Your task to perform on an android device: turn on airplane mode Image 0: 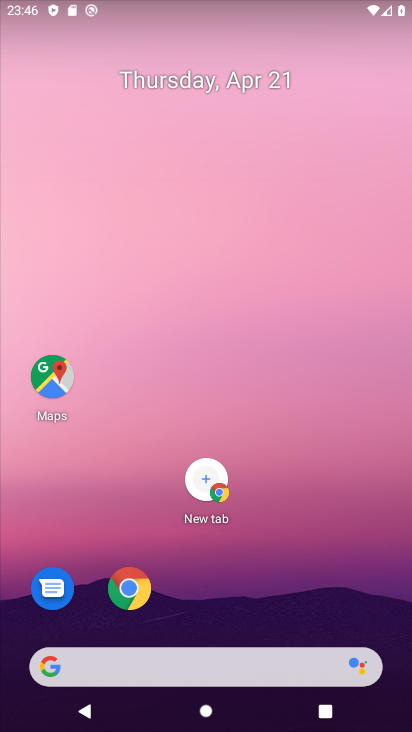
Step 0: drag from (206, 568) to (223, 161)
Your task to perform on an android device: turn on airplane mode Image 1: 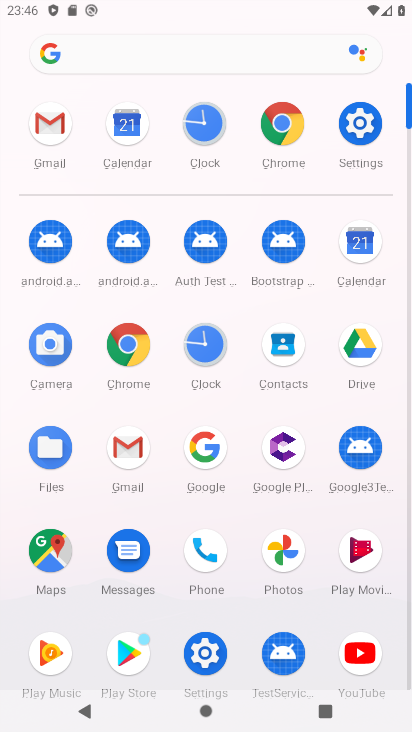
Step 1: click (352, 125)
Your task to perform on an android device: turn on airplane mode Image 2: 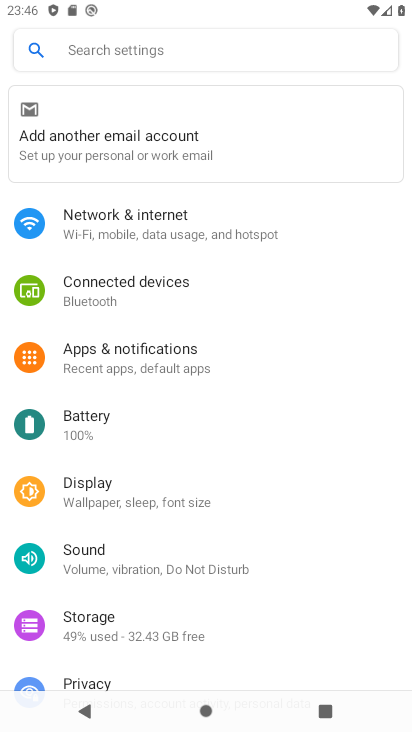
Step 2: click (161, 235)
Your task to perform on an android device: turn on airplane mode Image 3: 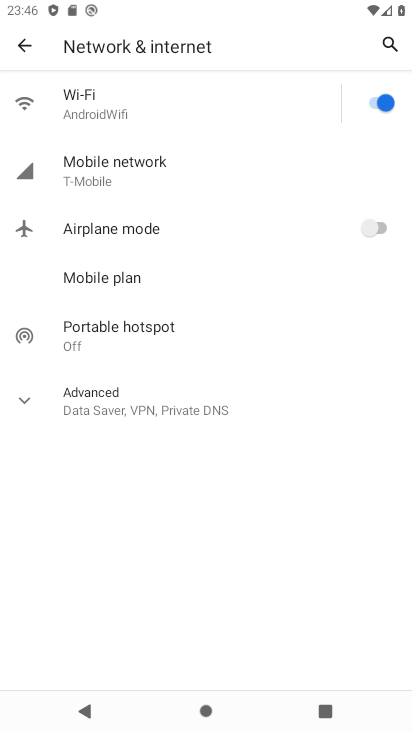
Step 3: click (381, 233)
Your task to perform on an android device: turn on airplane mode Image 4: 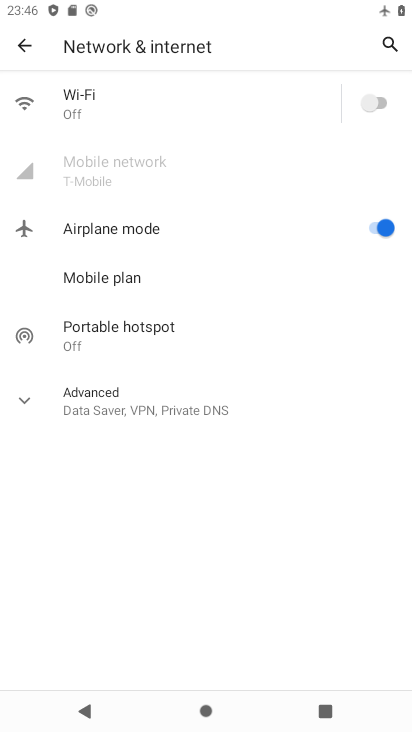
Step 4: task complete